Your task to perform on an android device: Do I have any events today? Image 0: 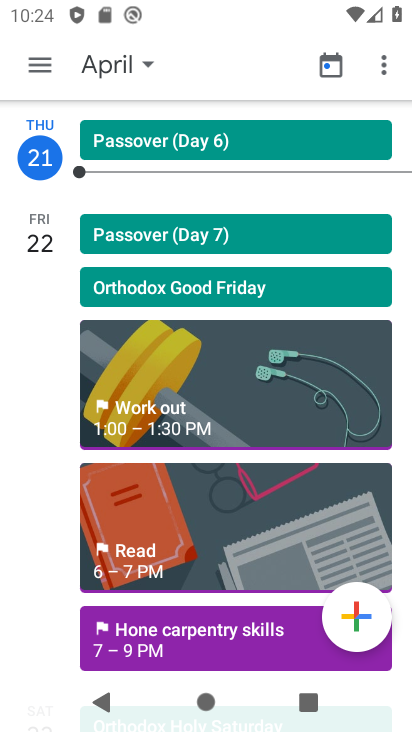
Step 0: press home button
Your task to perform on an android device: Do I have any events today? Image 1: 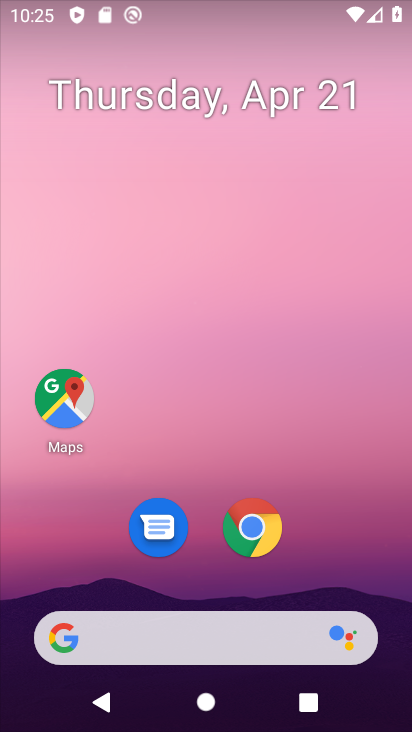
Step 1: drag from (332, 418) to (333, 116)
Your task to perform on an android device: Do I have any events today? Image 2: 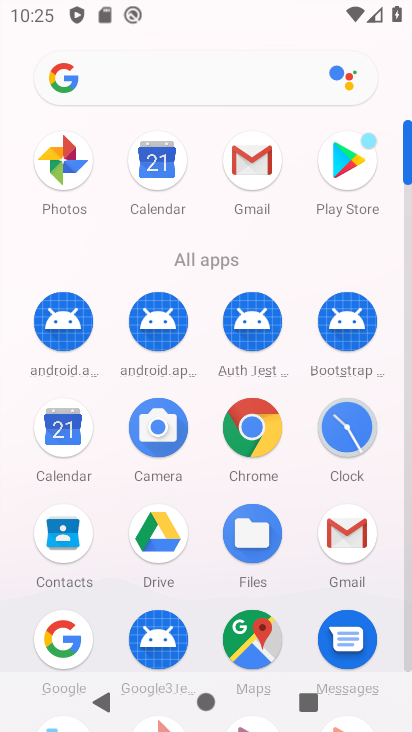
Step 2: click (153, 186)
Your task to perform on an android device: Do I have any events today? Image 3: 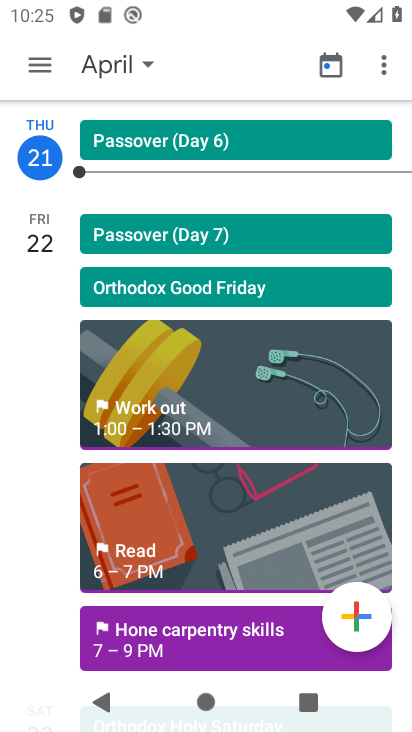
Step 3: click (130, 69)
Your task to perform on an android device: Do I have any events today? Image 4: 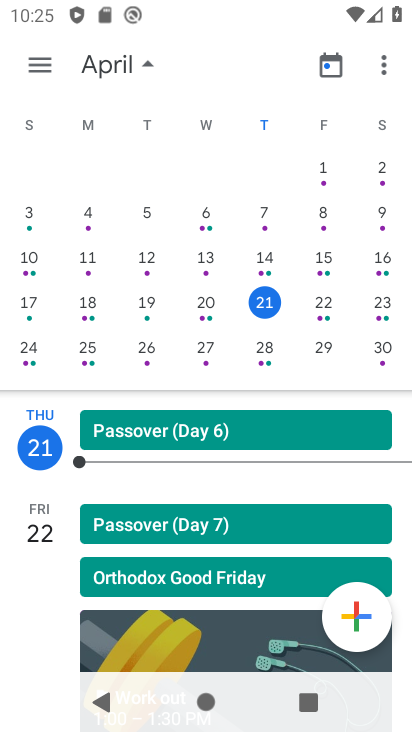
Step 4: click (261, 307)
Your task to perform on an android device: Do I have any events today? Image 5: 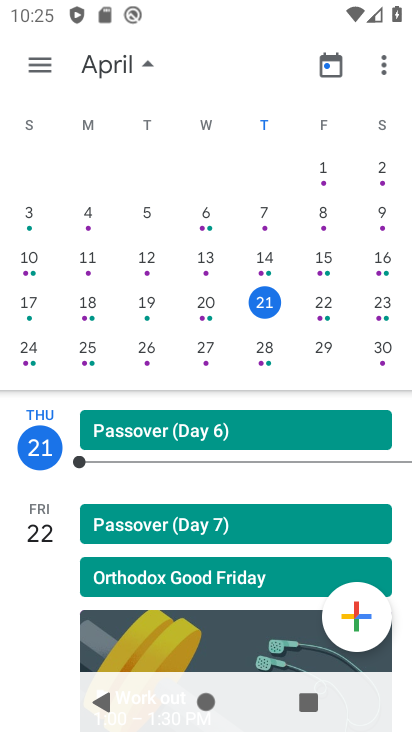
Step 5: task complete